Your task to perform on an android device: What's the weather going to be tomorrow? Image 0: 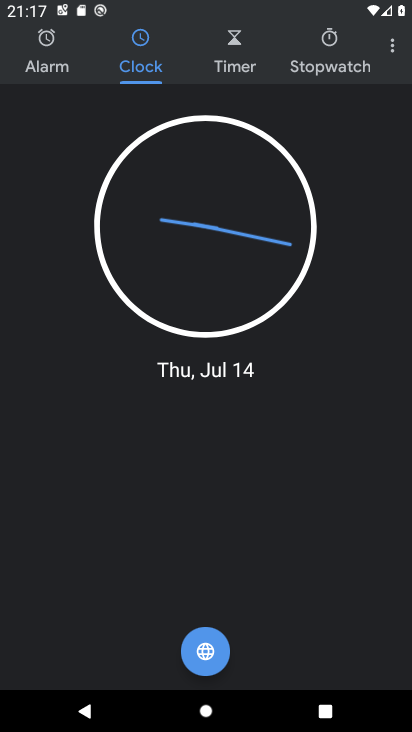
Step 0: press home button
Your task to perform on an android device: What's the weather going to be tomorrow? Image 1: 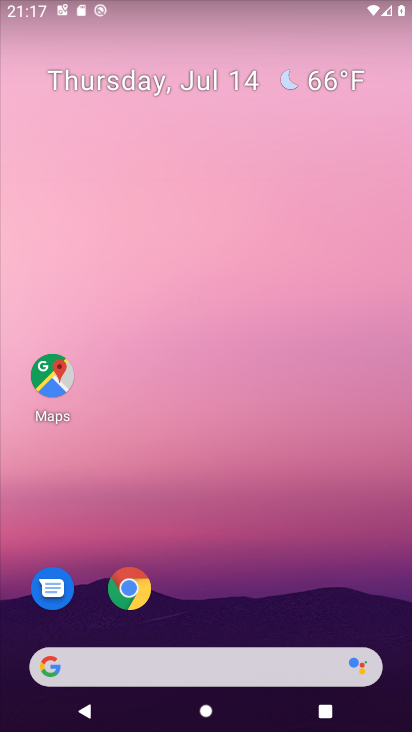
Step 1: click (235, 667)
Your task to perform on an android device: What's the weather going to be tomorrow? Image 2: 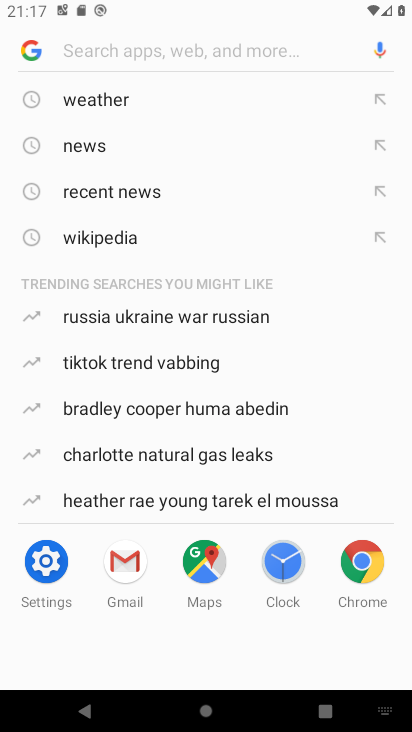
Step 2: click (108, 100)
Your task to perform on an android device: What's the weather going to be tomorrow? Image 3: 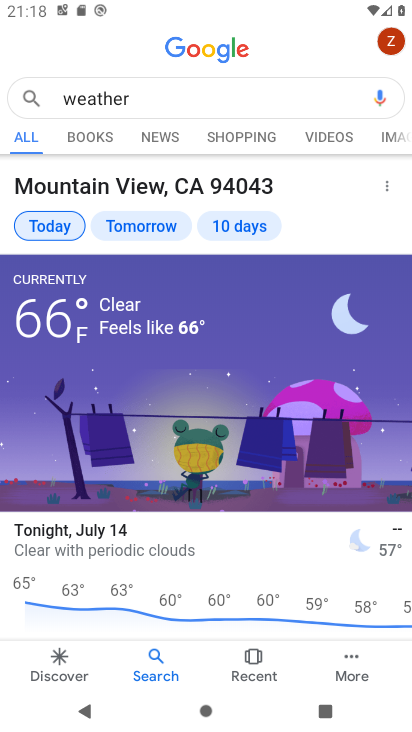
Step 3: click (139, 228)
Your task to perform on an android device: What's the weather going to be tomorrow? Image 4: 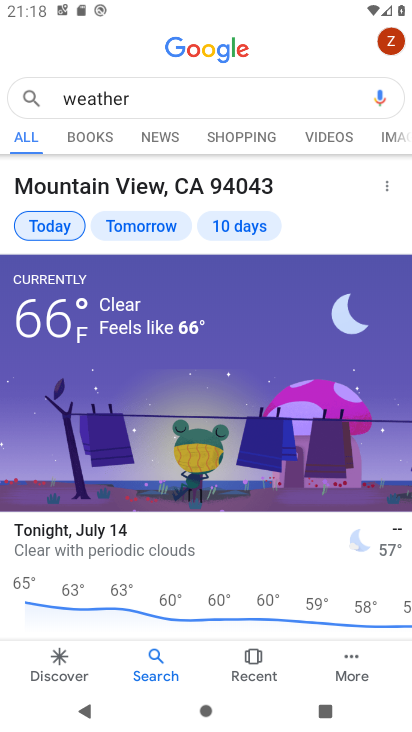
Step 4: click (139, 228)
Your task to perform on an android device: What's the weather going to be tomorrow? Image 5: 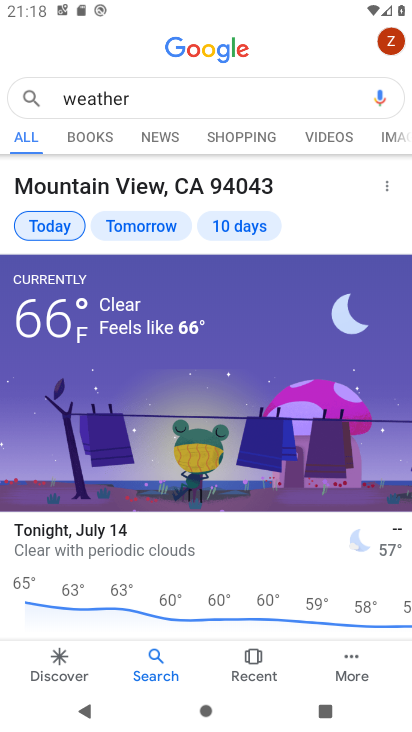
Step 5: click (139, 228)
Your task to perform on an android device: What's the weather going to be tomorrow? Image 6: 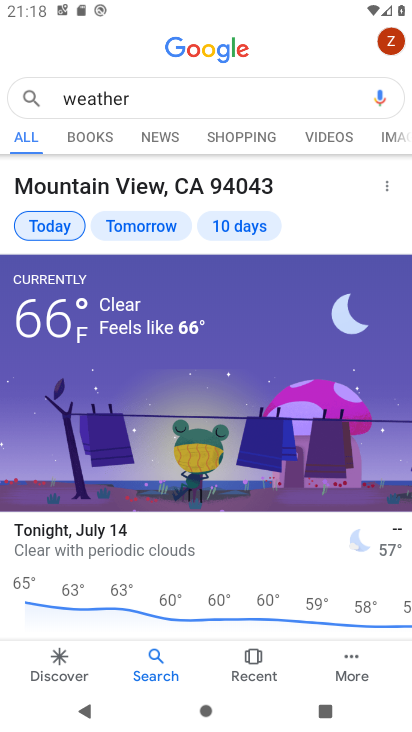
Step 6: click (139, 228)
Your task to perform on an android device: What's the weather going to be tomorrow? Image 7: 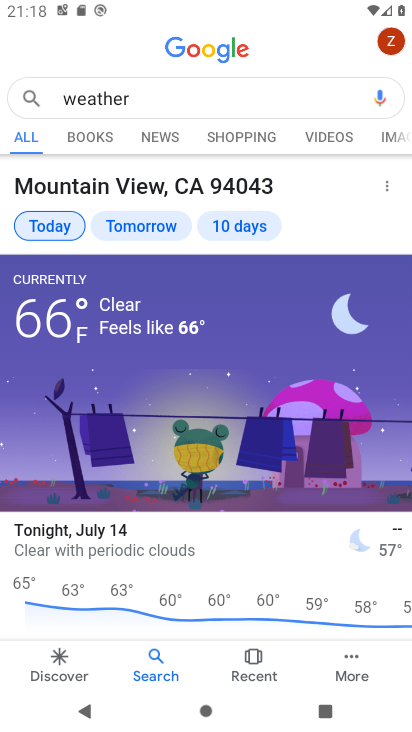
Step 7: task complete